Your task to perform on an android device: Go to Google maps Image 0: 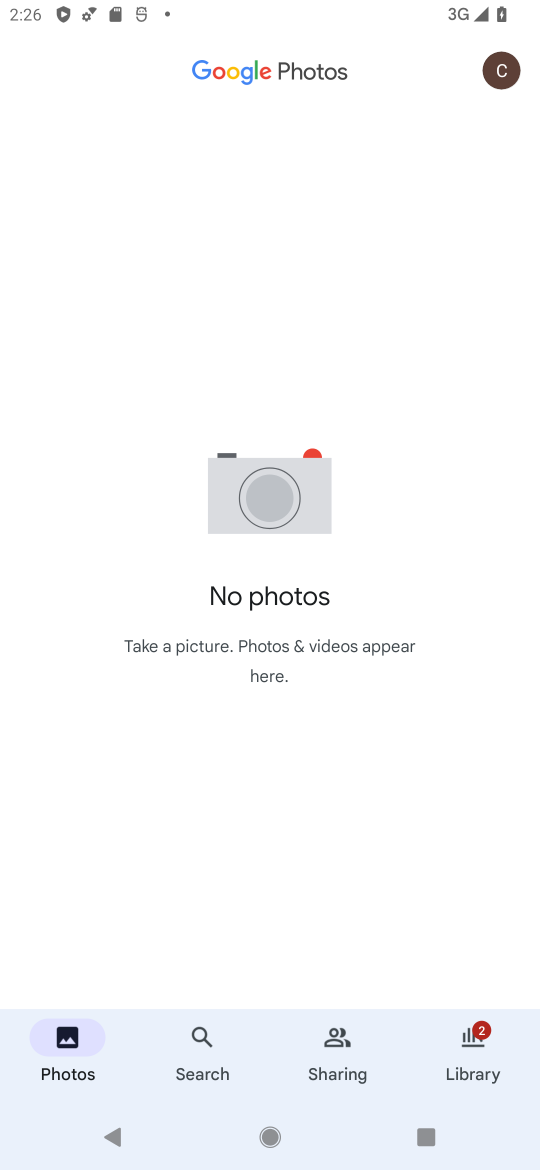
Step 0: press home button
Your task to perform on an android device: Go to Google maps Image 1: 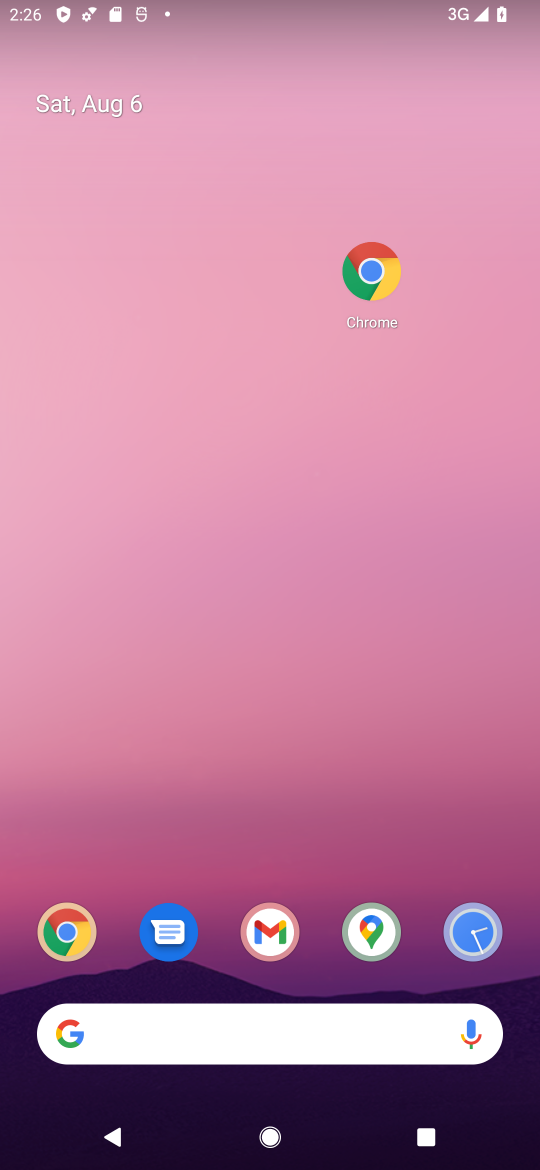
Step 1: click (370, 939)
Your task to perform on an android device: Go to Google maps Image 2: 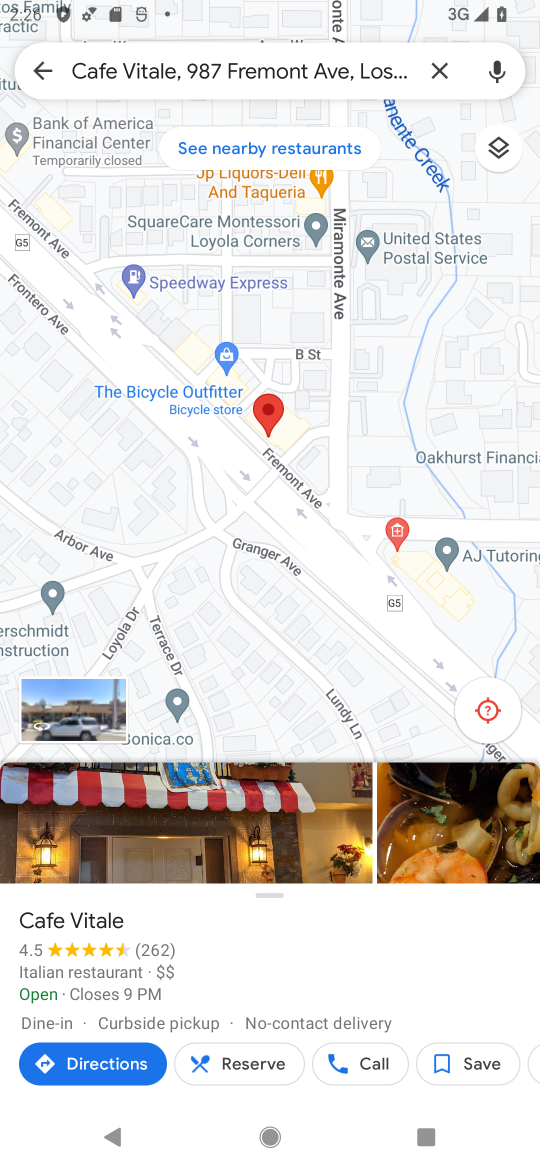
Step 2: click (42, 75)
Your task to perform on an android device: Go to Google maps Image 3: 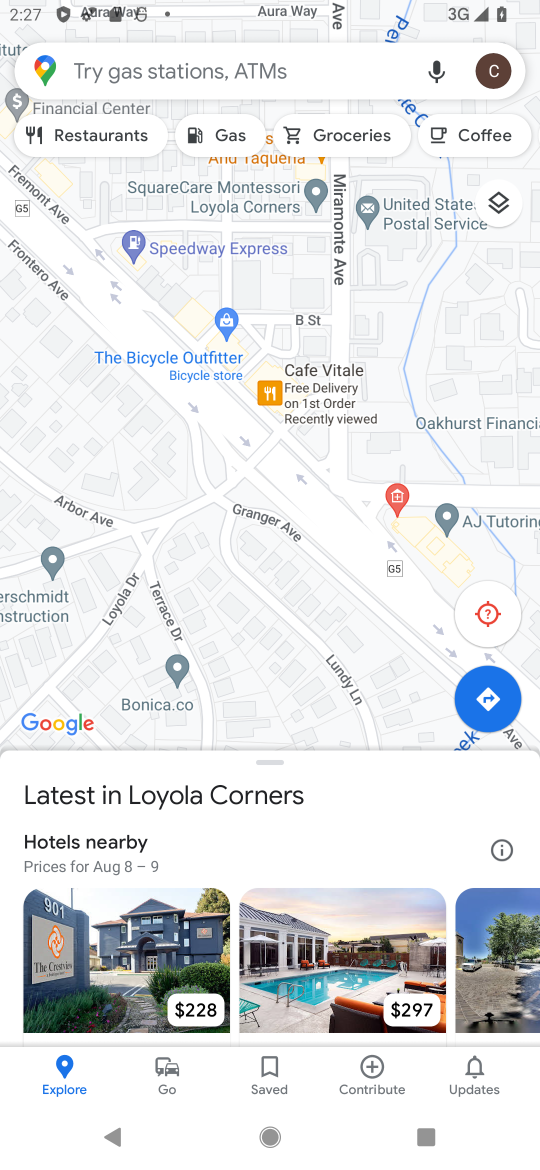
Step 3: task complete